Your task to perform on an android device: visit the assistant section in the google photos Image 0: 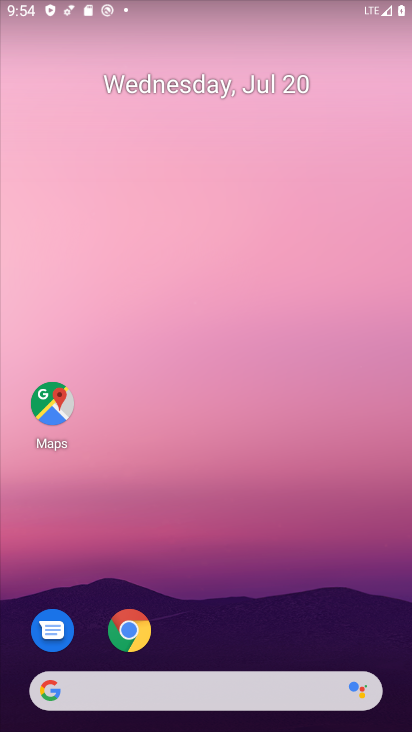
Step 0: drag from (286, 600) to (231, 46)
Your task to perform on an android device: visit the assistant section in the google photos Image 1: 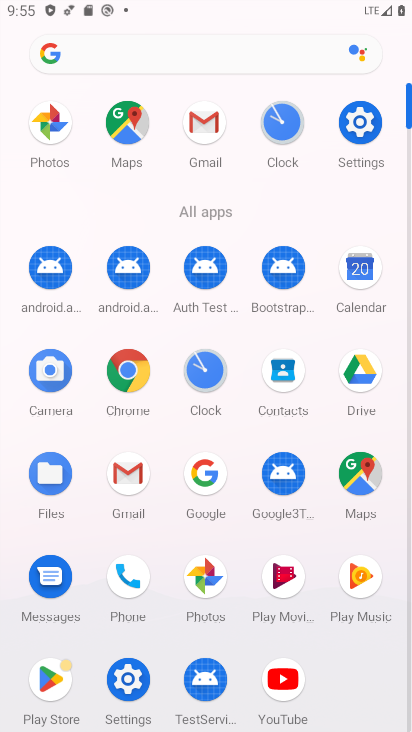
Step 1: click (198, 575)
Your task to perform on an android device: visit the assistant section in the google photos Image 2: 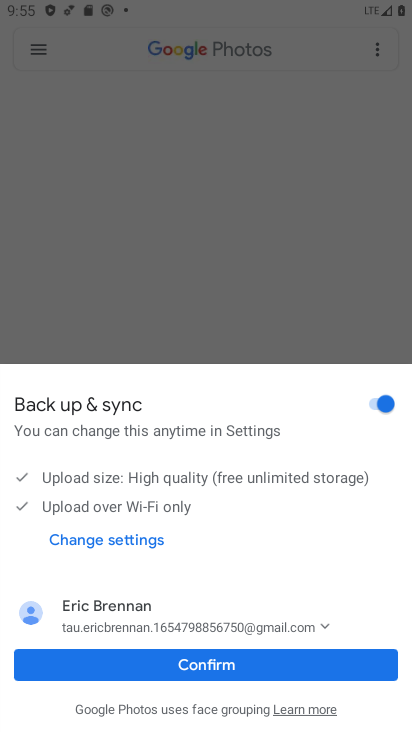
Step 2: click (171, 658)
Your task to perform on an android device: visit the assistant section in the google photos Image 3: 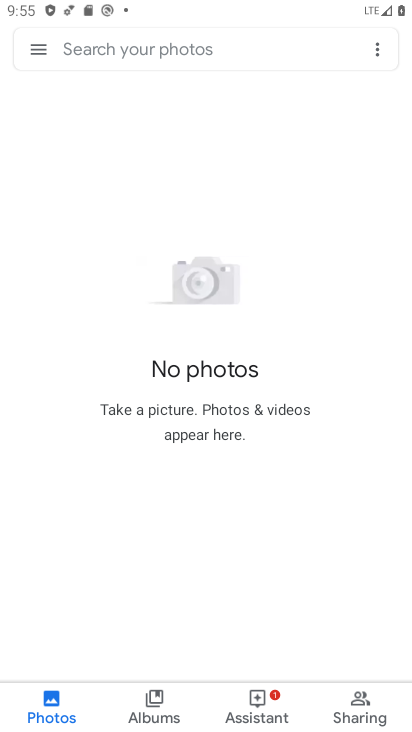
Step 3: click (238, 696)
Your task to perform on an android device: visit the assistant section in the google photos Image 4: 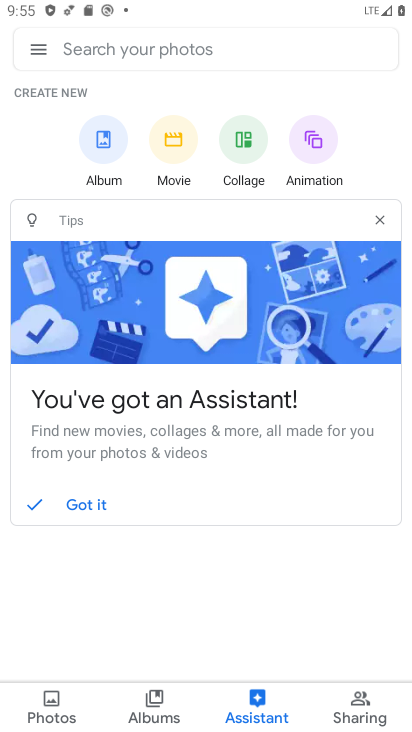
Step 4: task complete